Your task to perform on an android device: Open Chrome and go to settings Image 0: 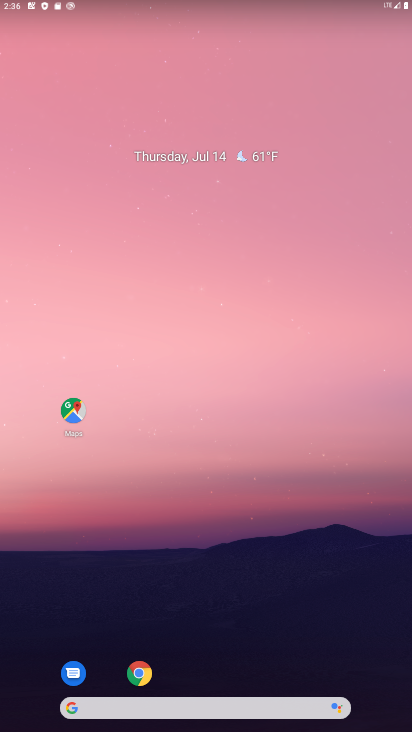
Step 0: click (139, 663)
Your task to perform on an android device: Open Chrome and go to settings Image 1: 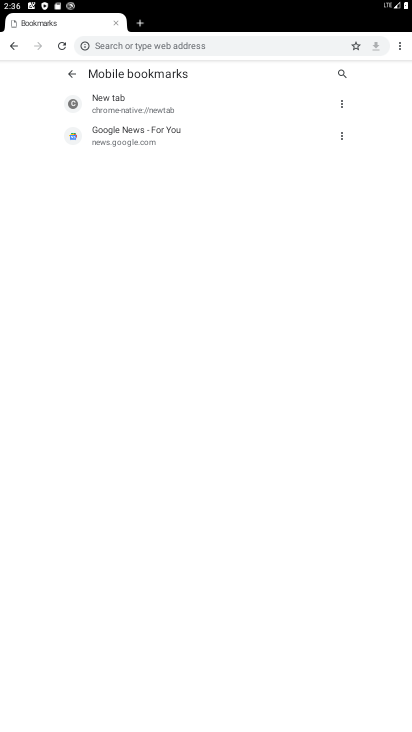
Step 1: click (403, 44)
Your task to perform on an android device: Open Chrome and go to settings Image 2: 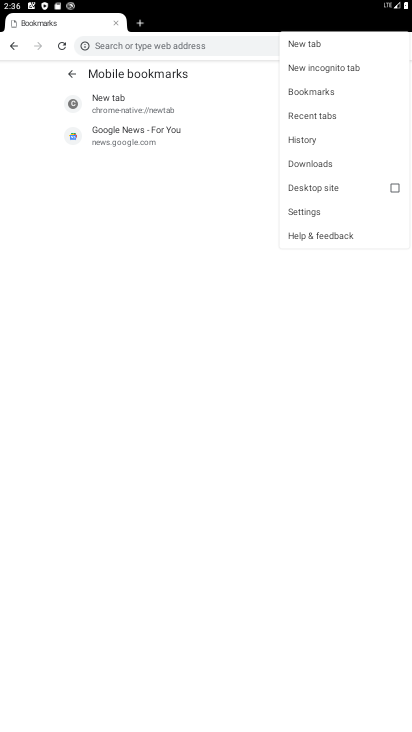
Step 2: click (321, 202)
Your task to perform on an android device: Open Chrome and go to settings Image 3: 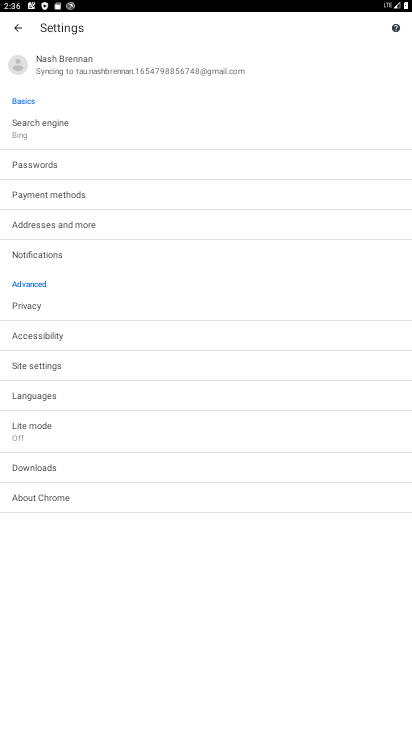
Step 3: task complete